Your task to perform on an android device: star an email in the gmail app Image 0: 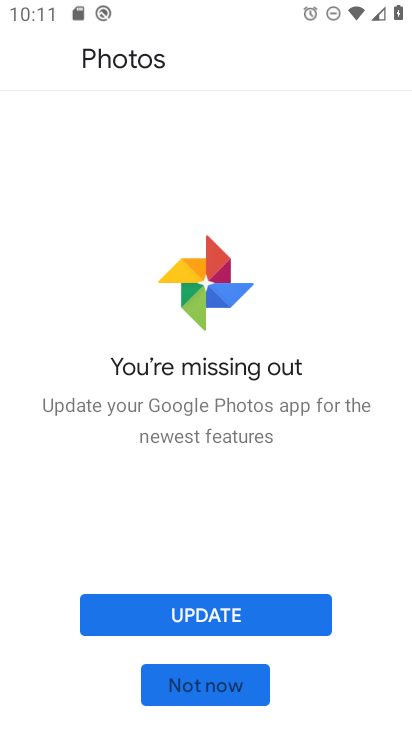
Step 0: press home button
Your task to perform on an android device: star an email in the gmail app Image 1: 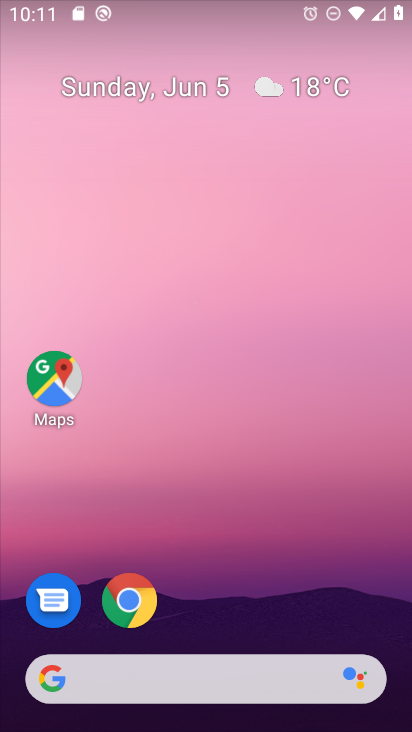
Step 1: drag from (246, 545) to (236, 35)
Your task to perform on an android device: star an email in the gmail app Image 2: 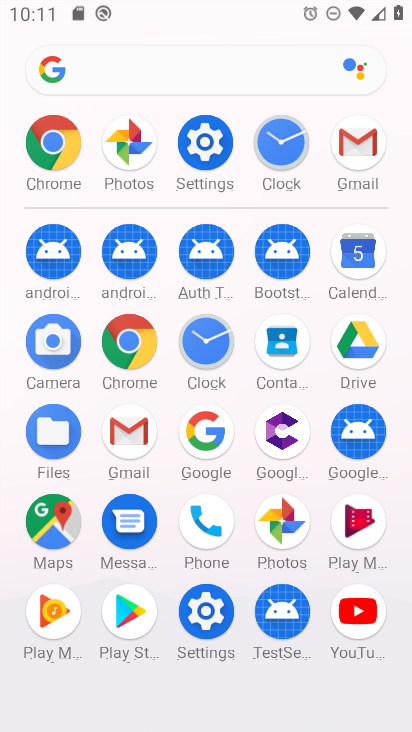
Step 2: click (346, 144)
Your task to perform on an android device: star an email in the gmail app Image 3: 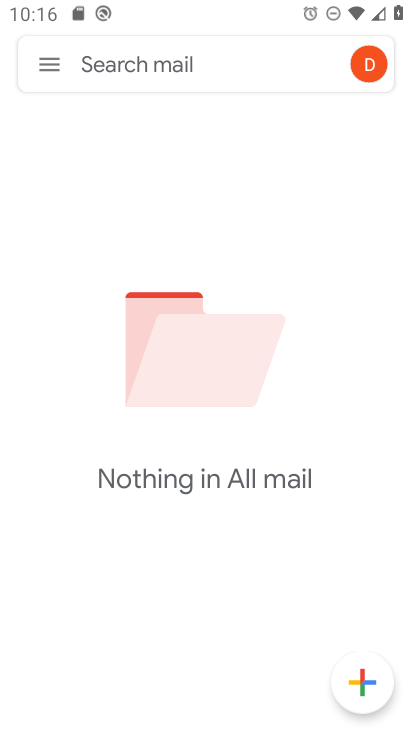
Step 3: task complete